Your task to perform on an android device: add a contact Image 0: 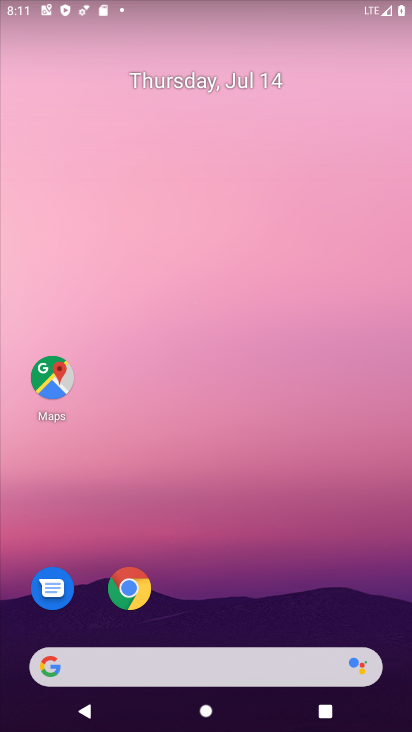
Step 0: drag from (397, 656) to (197, 71)
Your task to perform on an android device: add a contact Image 1: 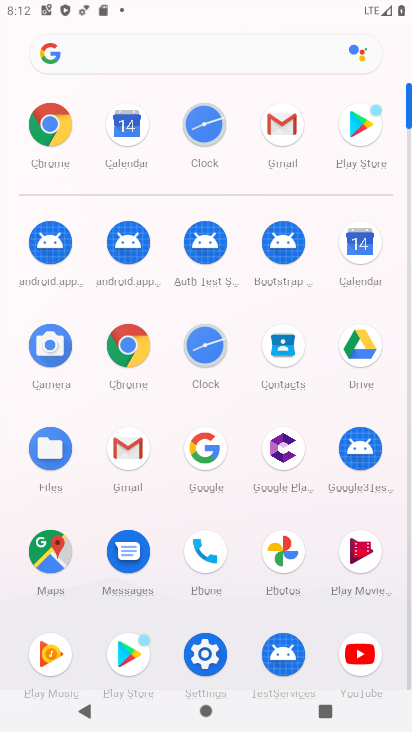
Step 1: click (274, 353)
Your task to perform on an android device: add a contact Image 2: 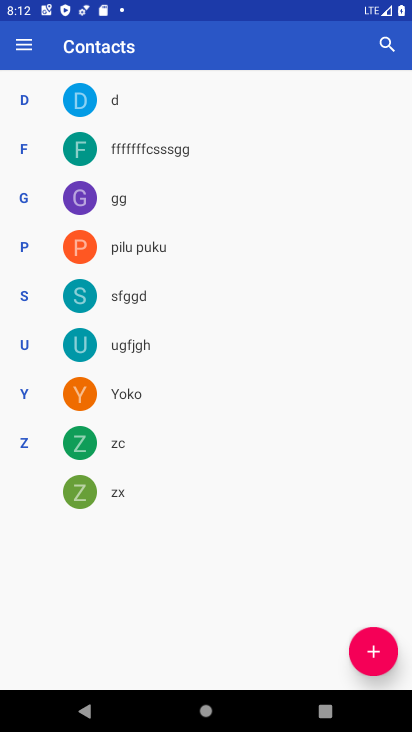
Step 2: click (355, 659)
Your task to perform on an android device: add a contact Image 3: 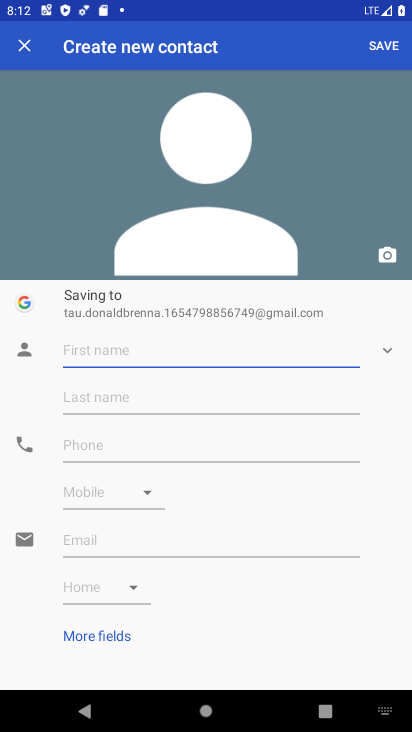
Step 3: type "paras"
Your task to perform on an android device: add a contact Image 4: 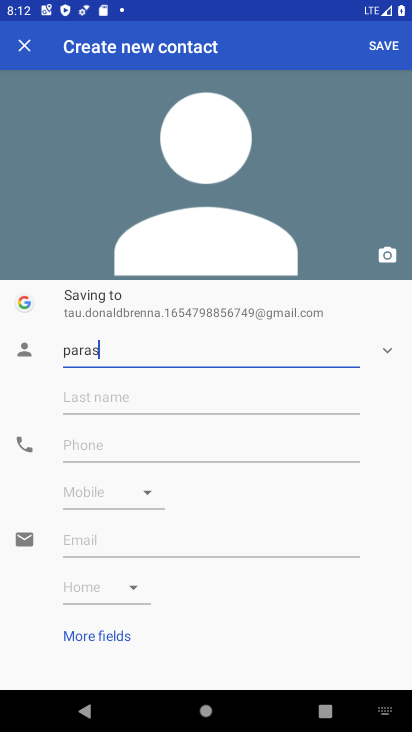
Step 4: click (390, 51)
Your task to perform on an android device: add a contact Image 5: 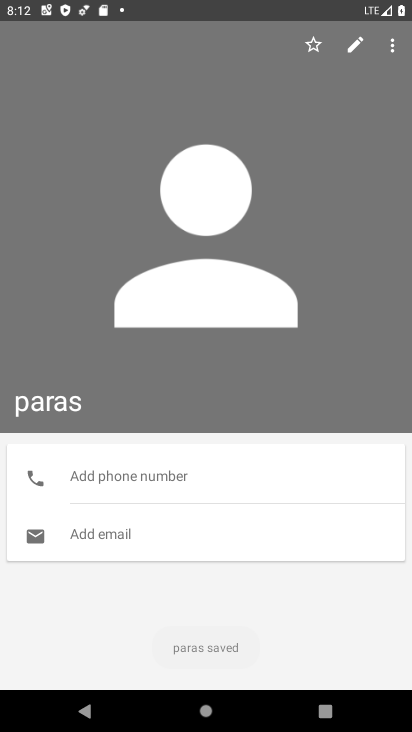
Step 5: task complete